Your task to perform on an android device: Check the weather Image 0: 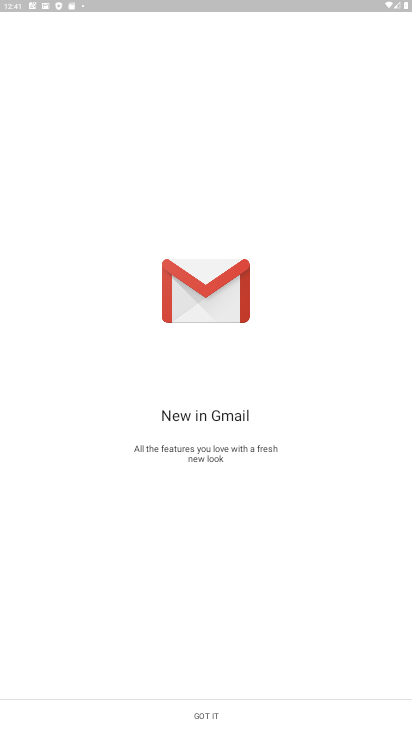
Step 0: press home button
Your task to perform on an android device: Check the weather Image 1: 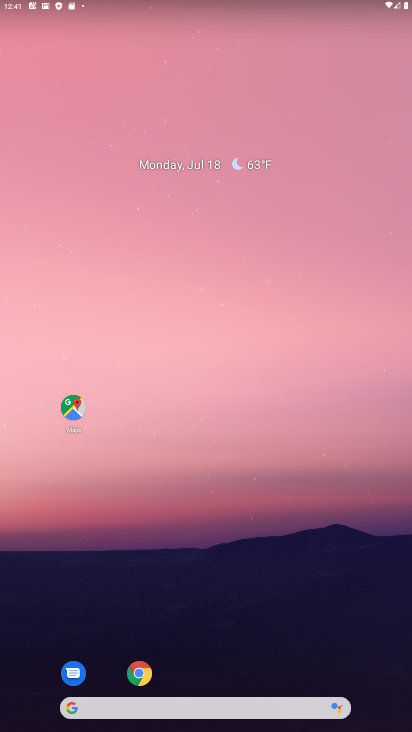
Step 1: drag from (203, 684) to (213, 296)
Your task to perform on an android device: Check the weather Image 2: 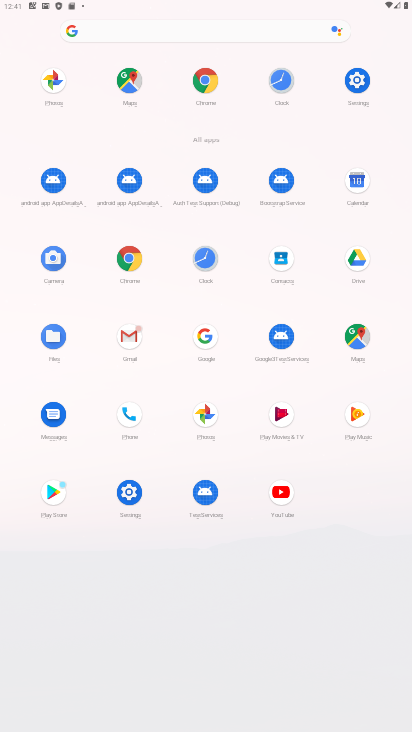
Step 2: click (208, 79)
Your task to perform on an android device: Check the weather Image 3: 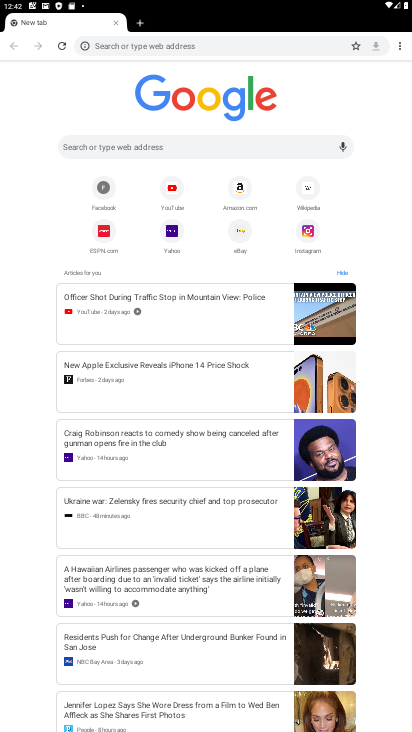
Step 3: click (194, 139)
Your task to perform on an android device: Check the weather Image 4: 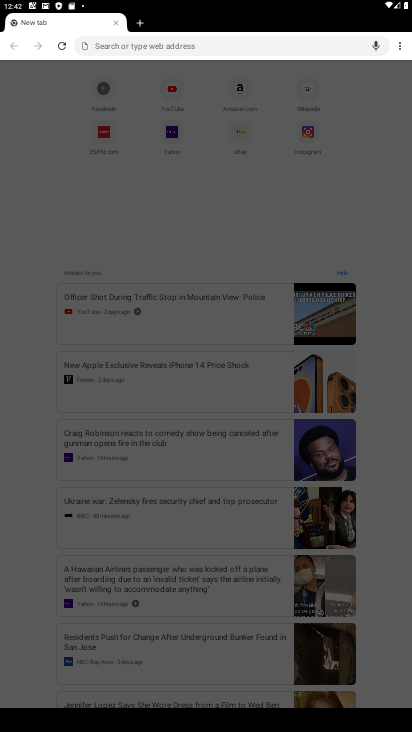
Step 4: type "Check the weather "
Your task to perform on an android device: Check the weather Image 5: 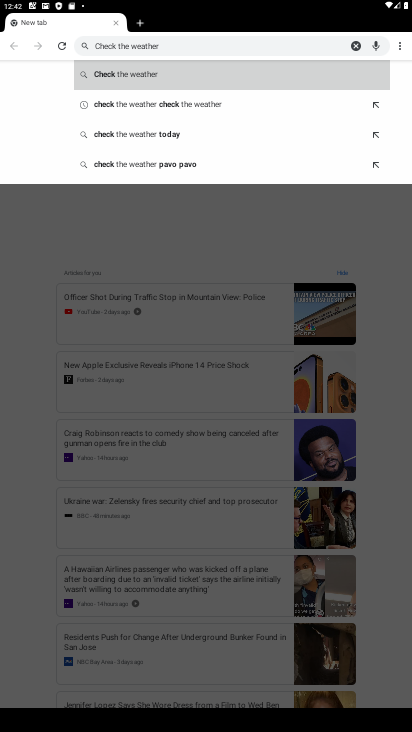
Step 5: click (218, 68)
Your task to perform on an android device: Check the weather Image 6: 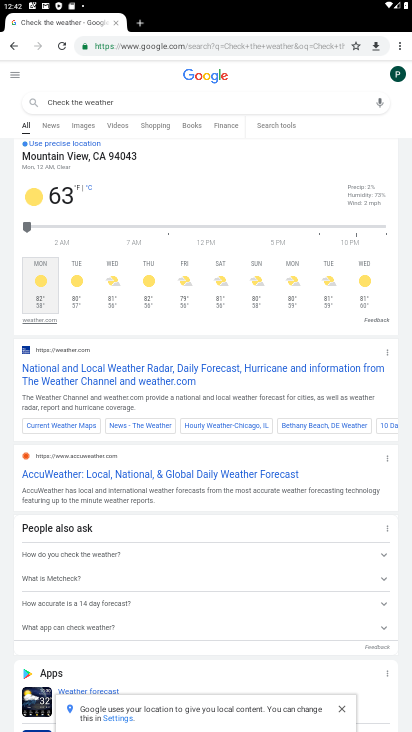
Step 6: task complete